Your task to perform on an android device: Go to display settings Image 0: 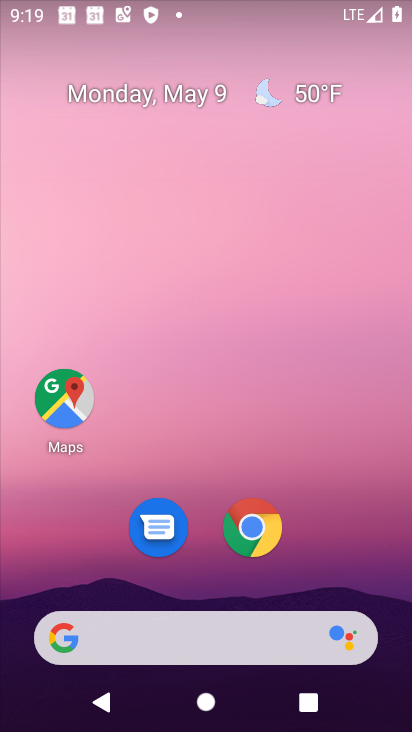
Step 0: drag from (212, 598) to (311, 115)
Your task to perform on an android device: Go to display settings Image 1: 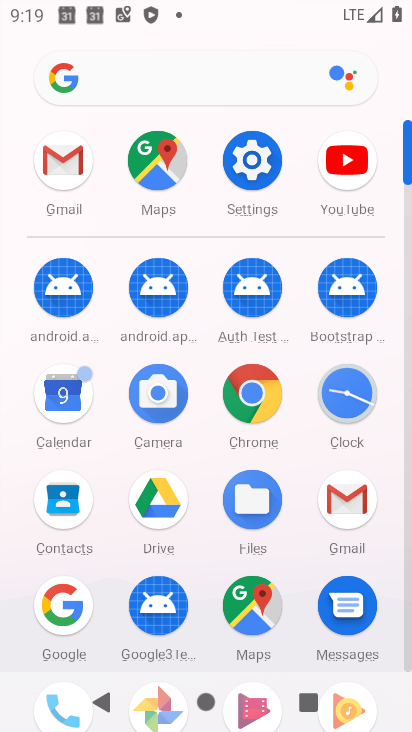
Step 1: click (248, 175)
Your task to perform on an android device: Go to display settings Image 2: 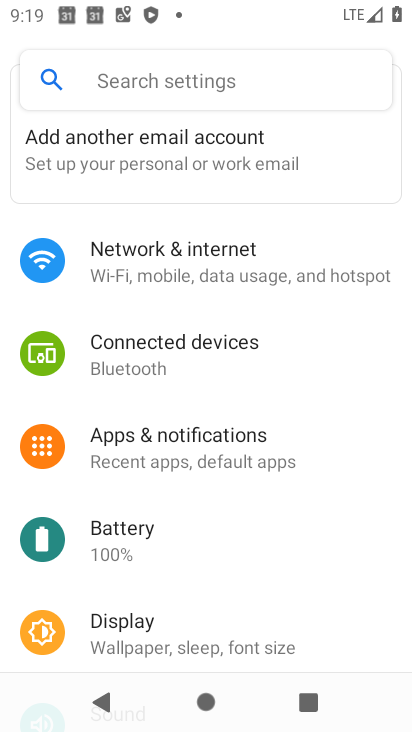
Step 2: click (144, 642)
Your task to perform on an android device: Go to display settings Image 3: 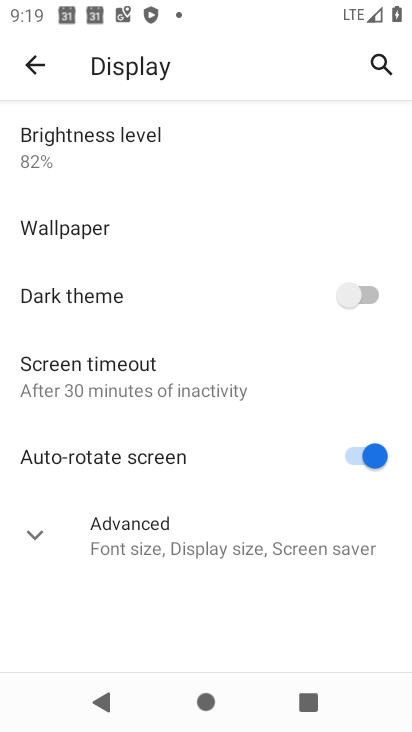
Step 3: click (141, 630)
Your task to perform on an android device: Go to display settings Image 4: 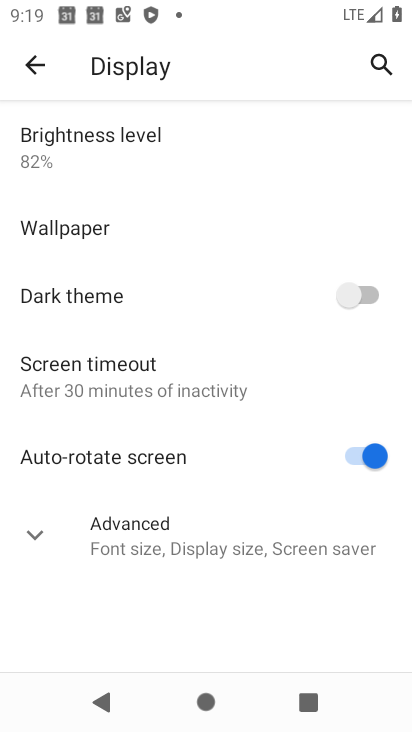
Step 4: task complete